Your task to perform on an android device: Go to battery settings Image 0: 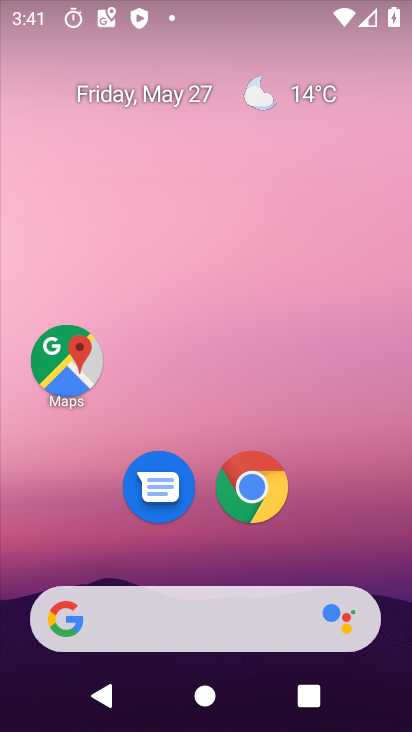
Step 0: drag from (336, 453) to (300, 13)
Your task to perform on an android device: Go to battery settings Image 1: 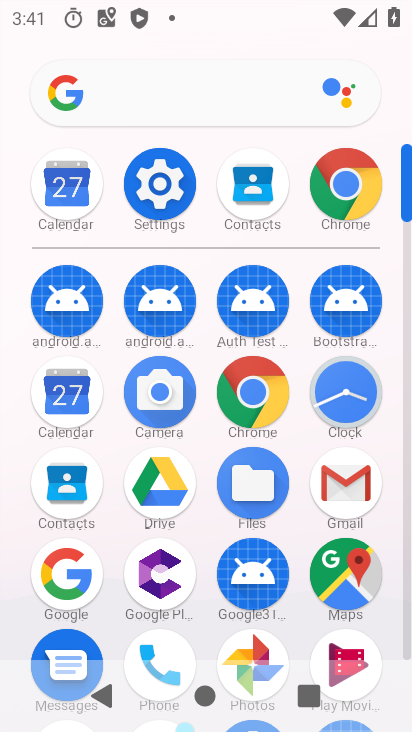
Step 1: click (165, 196)
Your task to perform on an android device: Go to battery settings Image 2: 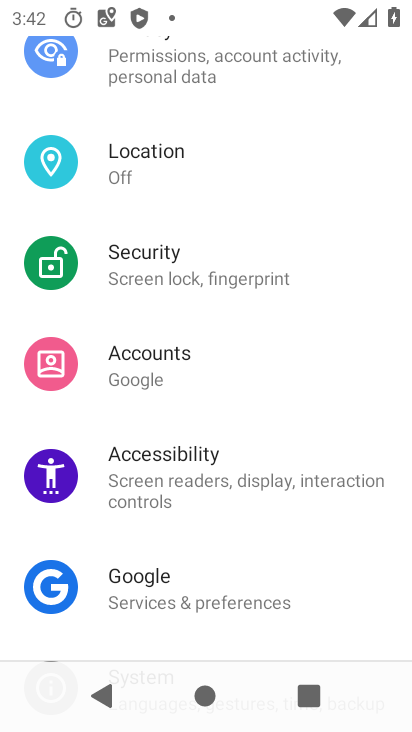
Step 2: drag from (262, 209) to (222, 728)
Your task to perform on an android device: Go to battery settings Image 3: 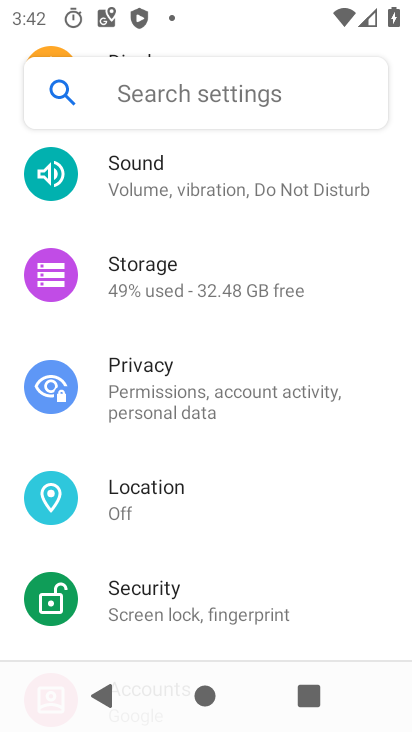
Step 3: drag from (233, 269) to (227, 722)
Your task to perform on an android device: Go to battery settings Image 4: 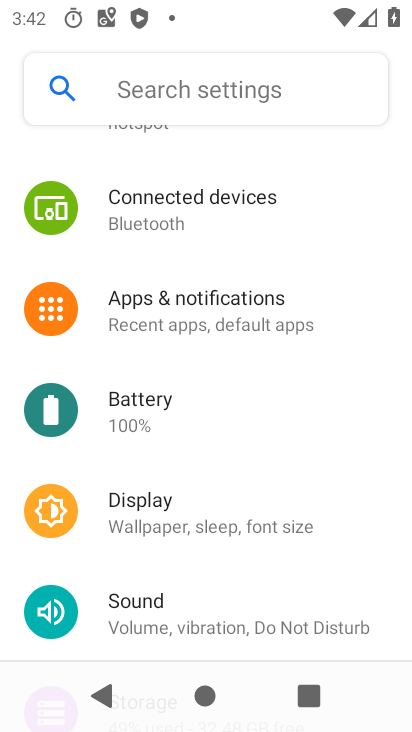
Step 4: click (140, 390)
Your task to perform on an android device: Go to battery settings Image 5: 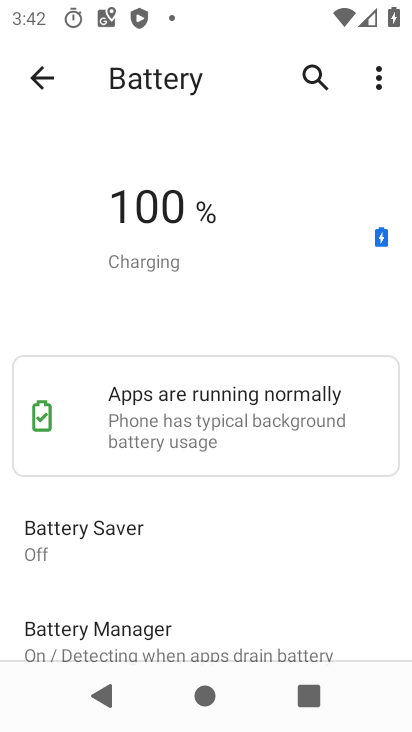
Step 5: task complete